Your task to perform on an android device: What is the recent news? Image 0: 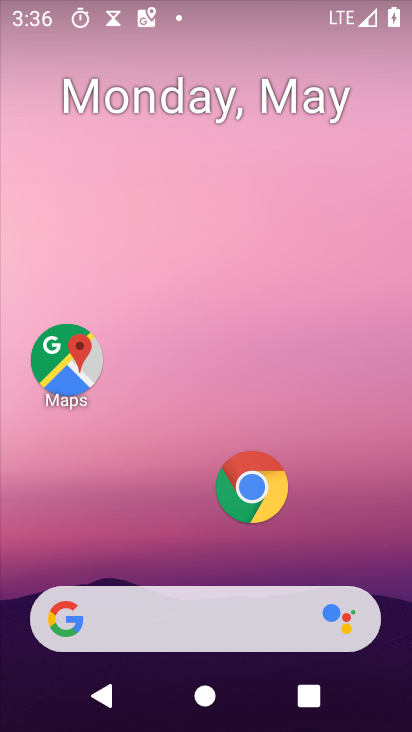
Step 0: click (149, 617)
Your task to perform on an android device: What is the recent news? Image 1: 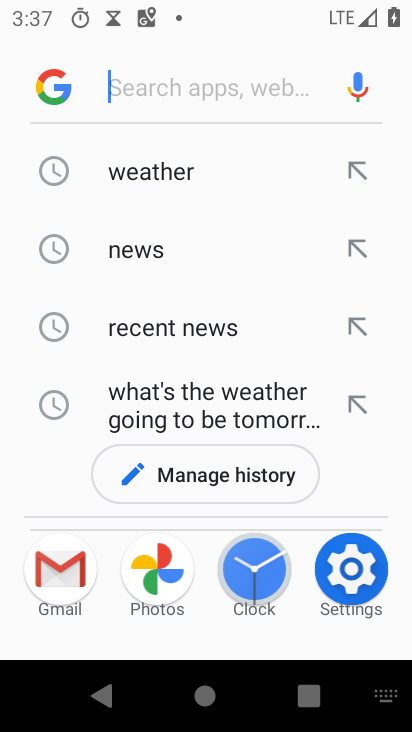
Step 1: type "recent news"
Your task to perform on an android device: What is the recent news? Image 2: 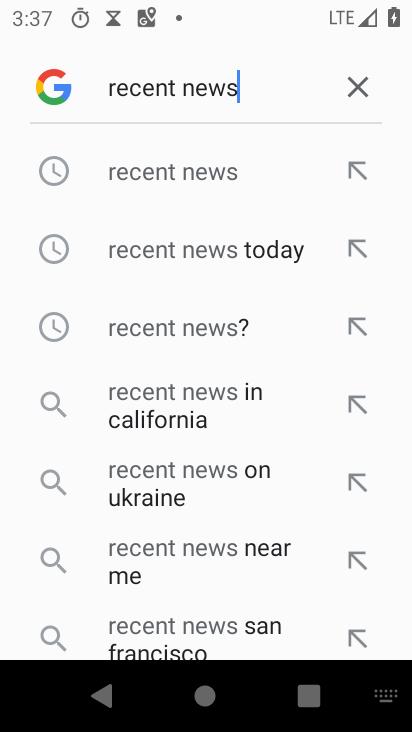
Step 2: click (200, 176)
Your task to perform on an android device: What is the recent news? Image 3: 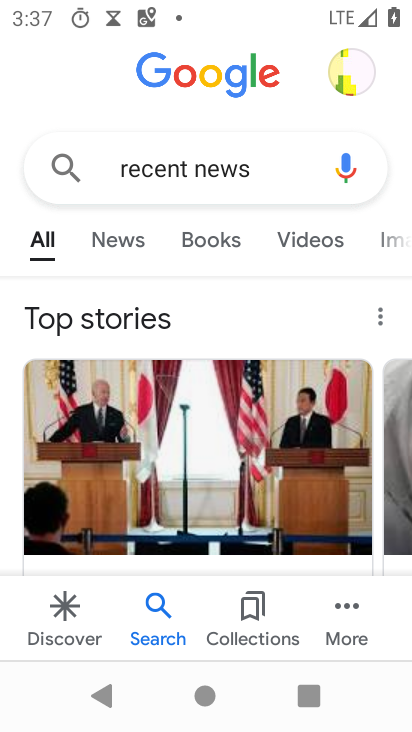
Step 3: click (127, 233)
Your task to perform on an android device: What is the recent news? Image 4: 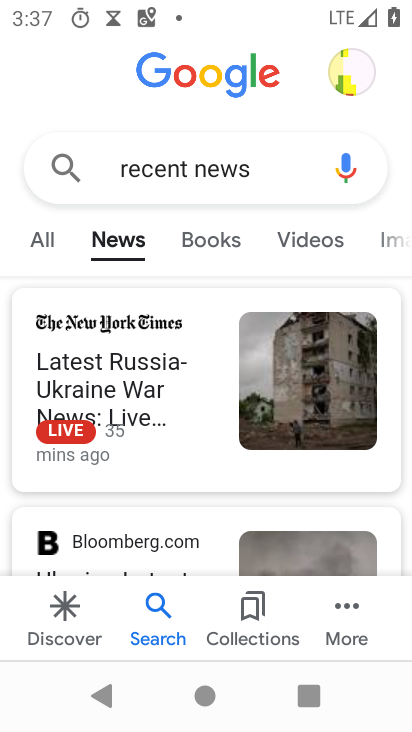
Step 4: task complete